Your task to perform on an android device: toggle priority inbox in the gmail app Image 0: 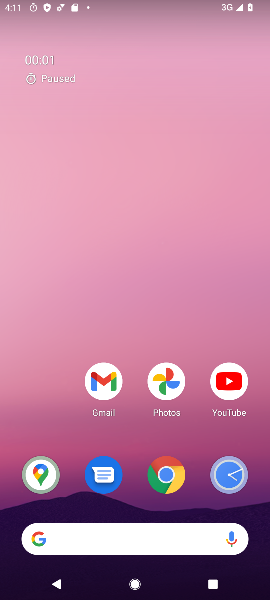
Step 0: click (91, 390)
Your task to perform on an android device: toggle priority inbox in the gmail app Image 1: 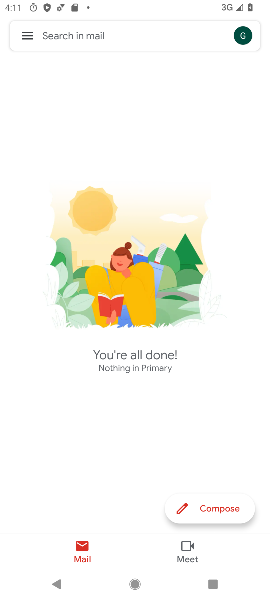
Step 1: click (21, 29)
Your task to perform on an android device: toggle priority inbox in the gmail app Image 2: 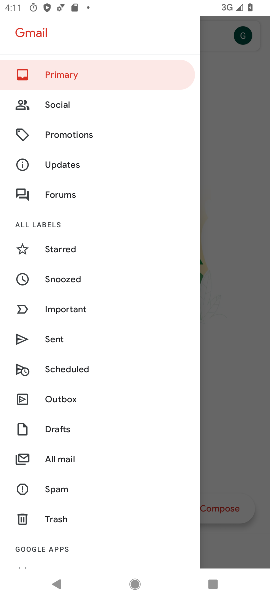
Step 2: drag from (107, 518) to (94, 282)
Your task to perform on an android device: toggle priority inbox in the gmail app Image 3: 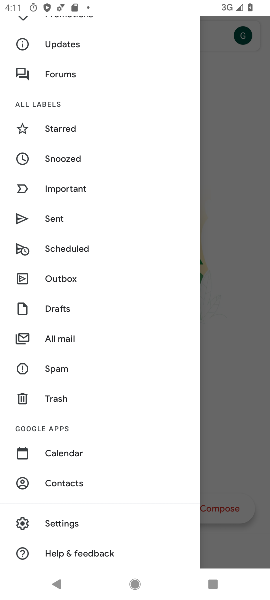
Step 3: click (65, 521)
Your task to perform on an android device: toggle priority inbox in the gmail app Image 4: 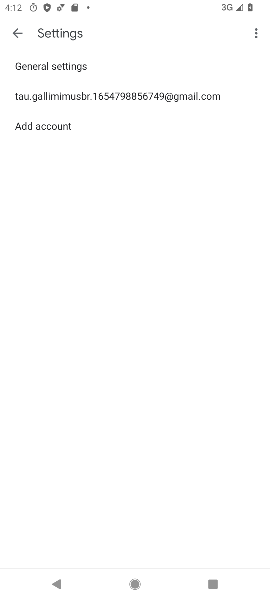
Step 4: click (54, 88)
Your task to perform on an android device: toggle priority inbox in the gmail app Image 5: 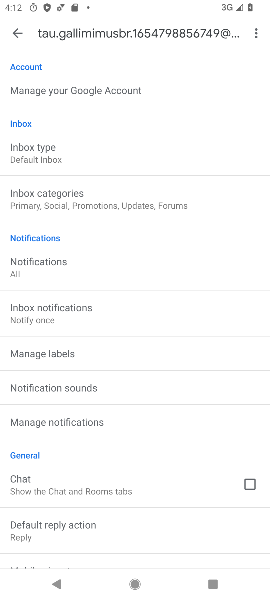
Step 5: click (44, 157)
Your task to perform on an android device: toggle priority inbox in the gmail app Image 6: 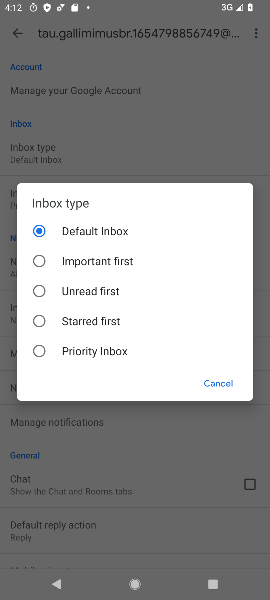
Step 6: click (45, 355)
Your task to perform on an android device: toggle priority inbox in the gmail app Image 7: 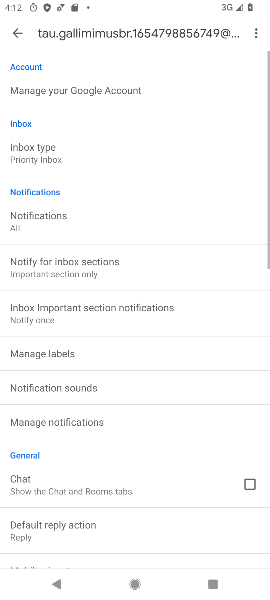
Step 7: click (45, 355)
Your task to perform on an android device: toggle priority inbox in the gmail app Image 8: 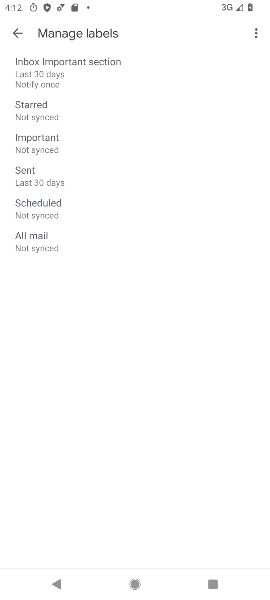
Step 8: click (16, 38)
Your task to perform on an android device: toggle priority inbox in the gmail app Image 9: 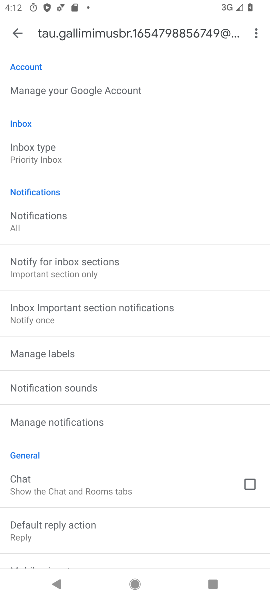
Step 9: task complete